Your task to perform on an android device: turn off smart reply in the gmail app Image 0: 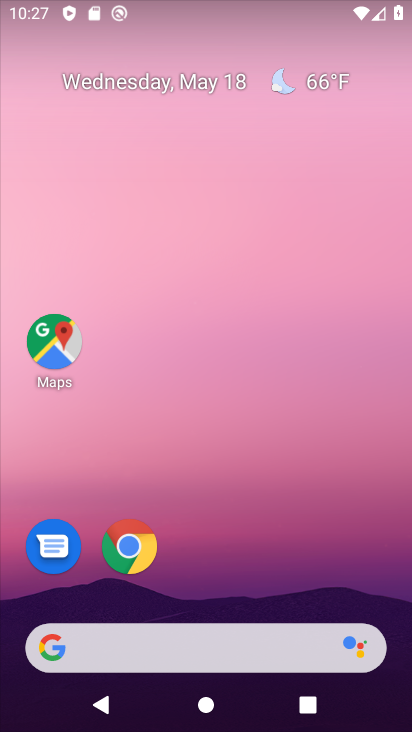
Step 0: drag from (229, 609) to (261, 166)
Your task to perform on an android device: turn off smart reply in the gmail app Image 1: 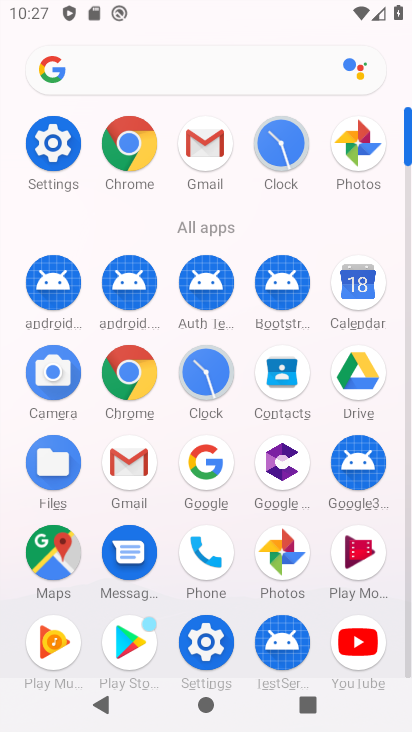
Step 1: click (204, 137)
Your task to perform on an android device: turn off smart reply in the gmail app Image 2: 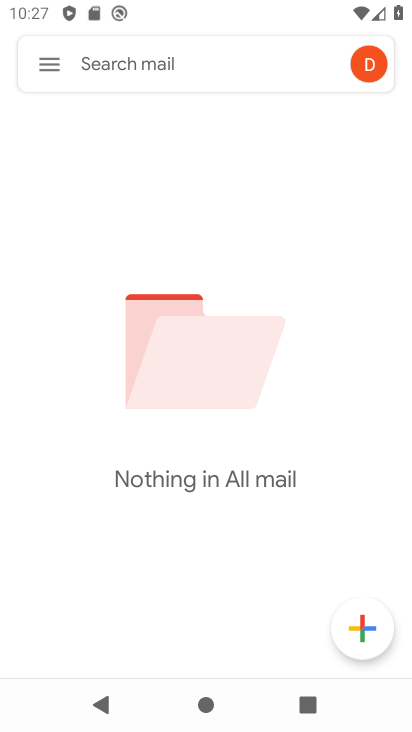
Step 2: click (57, 73)
Your task to perform on an android device: turn off smart reply in the gmail app Image 3: 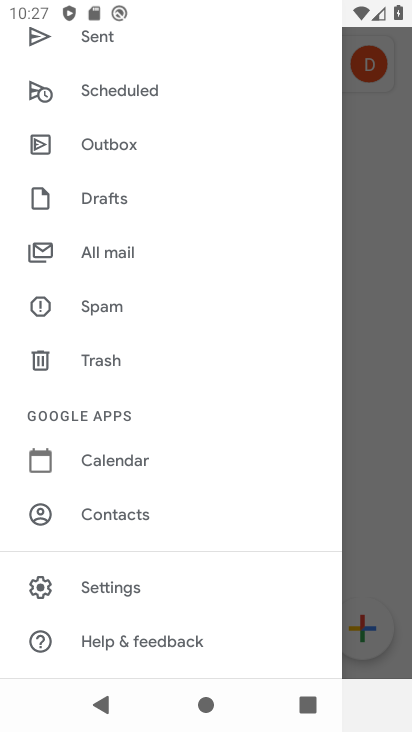
Step 3: click (118, 610)
Your task to perform on an android device: turn off smart reply in the gmail app Image 4: 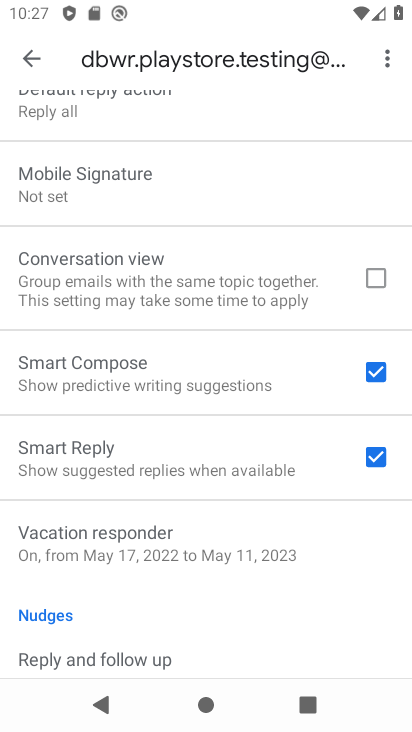
Step 4: click (370, 459)
Your task to perform on an android device: turn off smart reply in the gmail app Image 5: 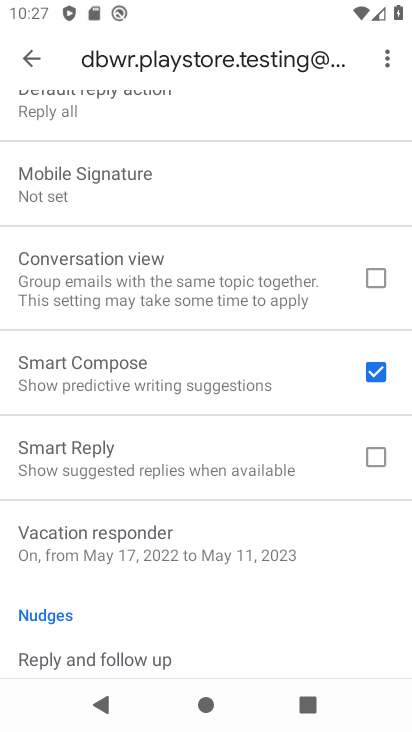
Step 5: task complete